Your task to perform on an android device: Search for Mexican restaurants on Maps Image 0: 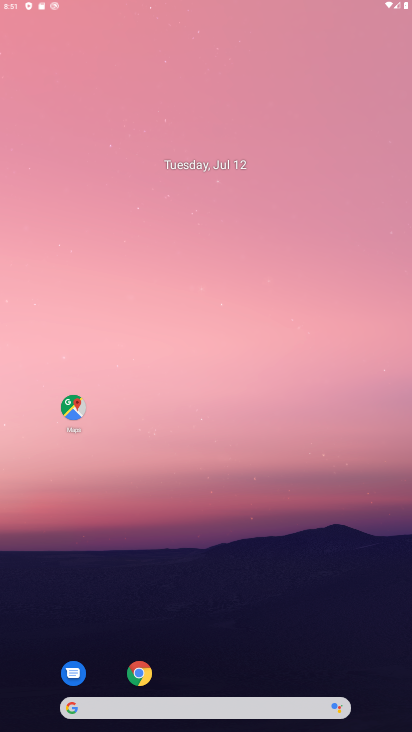
Step 0: press home button
Your task to perform on an android device: Search for Mexican restaurants on Maps Image 1: 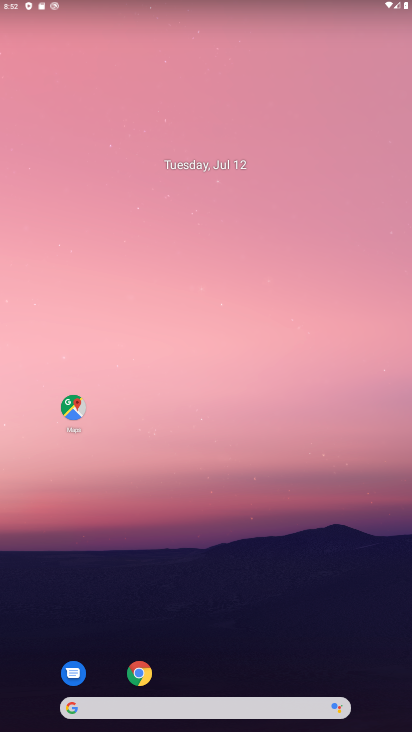
Step 1: click (72, 403)
Your task to perform on an android device: Search for Mexican restaurants on Maps Image 2: 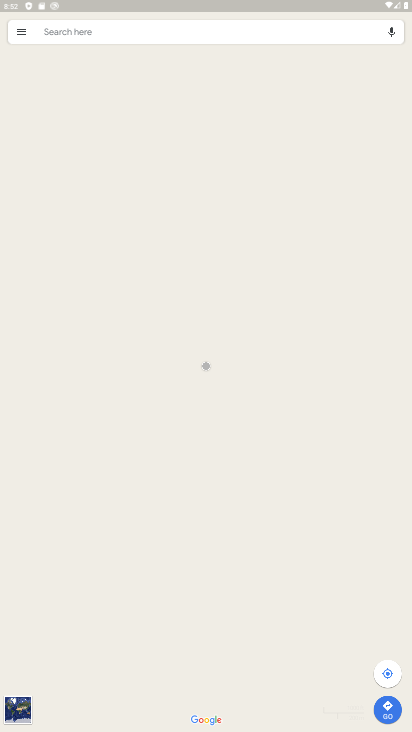
Step 2: click (120, 35)
Your task to perform on an android device: Search for Mexican restaurants on Maps Image 3: 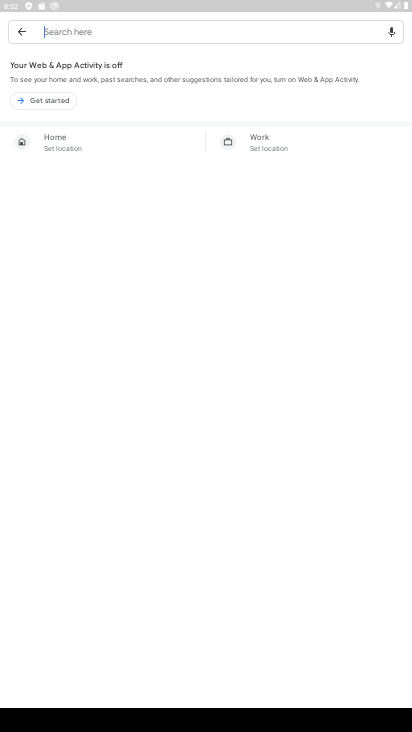
Step 3: click (59, 28)
Your task to perform on an android device: Search for Mexican restaurants on Maps Image 4: 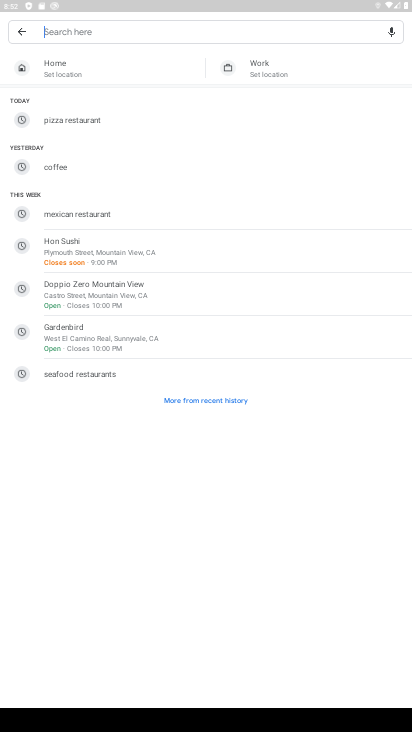
Step 4: type "Mexican restaurants"
Your task to perform on an android device: Search for Mexican restaurants on Maps Image 5: 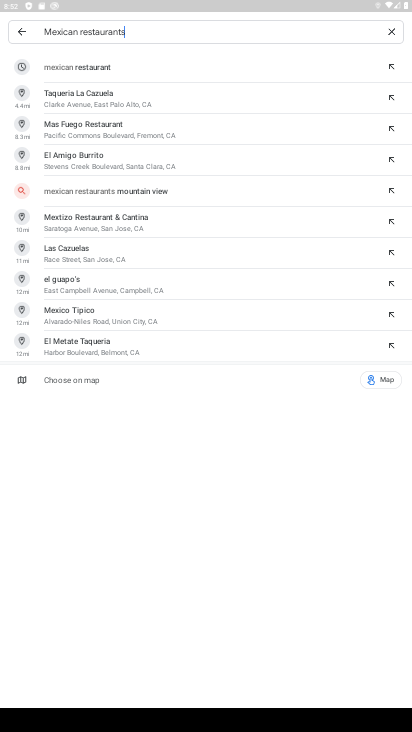
Step 5: click (84, 65)
Your task to perform on an android device: Search for Mexican restaurants on Maps Image 6: 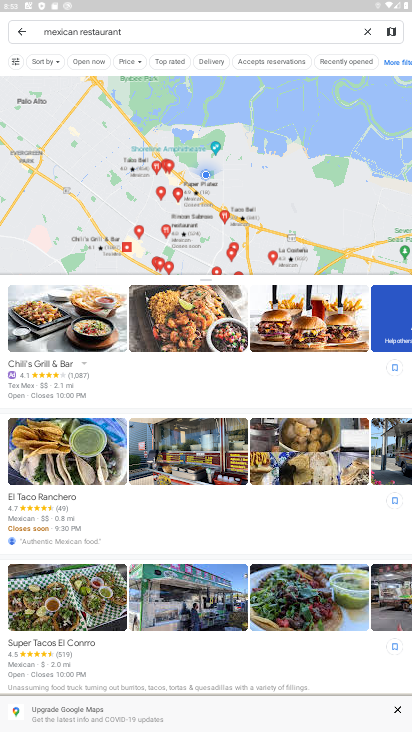
Step 6: task complete